Your task to perform on an android device: star an email in the gmail app Image 0: 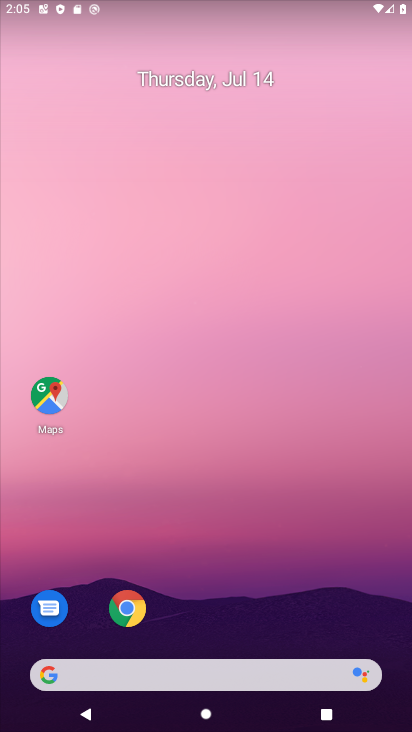
Step 0: drag from (237, 598) to (228, 196)
Your task to perform on an android device: star an email in the gmail app Image 1: 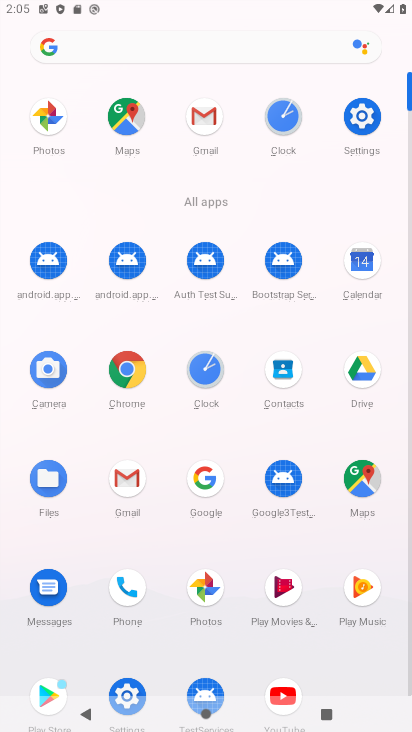
Step 1: click (137, 479)
Your task to perform on an android device: star an email in the gmail app Image 2: 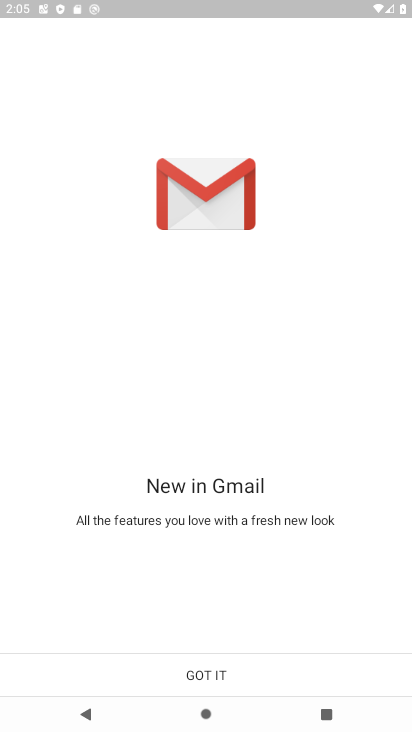
Step 2: click (219, 674)
Your task to perform on an android device: star an email in the gmail app Image 3: 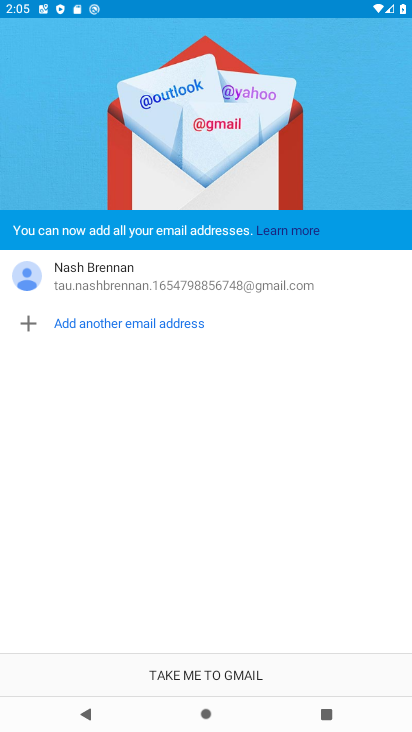
Step 3: click (219, 674)
Your task to perform on an android device: star an email in the gmail app Image 4: 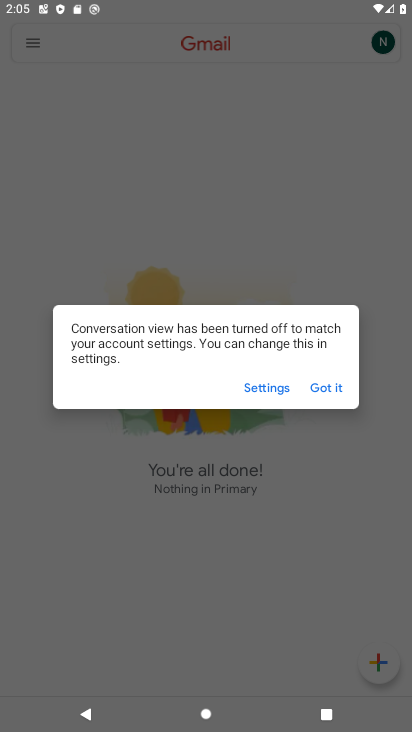
Step 4: click (331, 379)
Your task to perform on an android device: star an email in the gmail app Image 5: 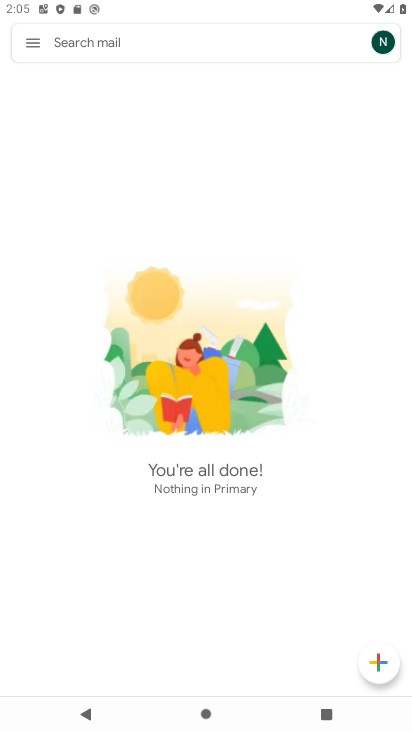
Step 5: task complete